Your task to perform on an android device: Go to Android settings Image 0: 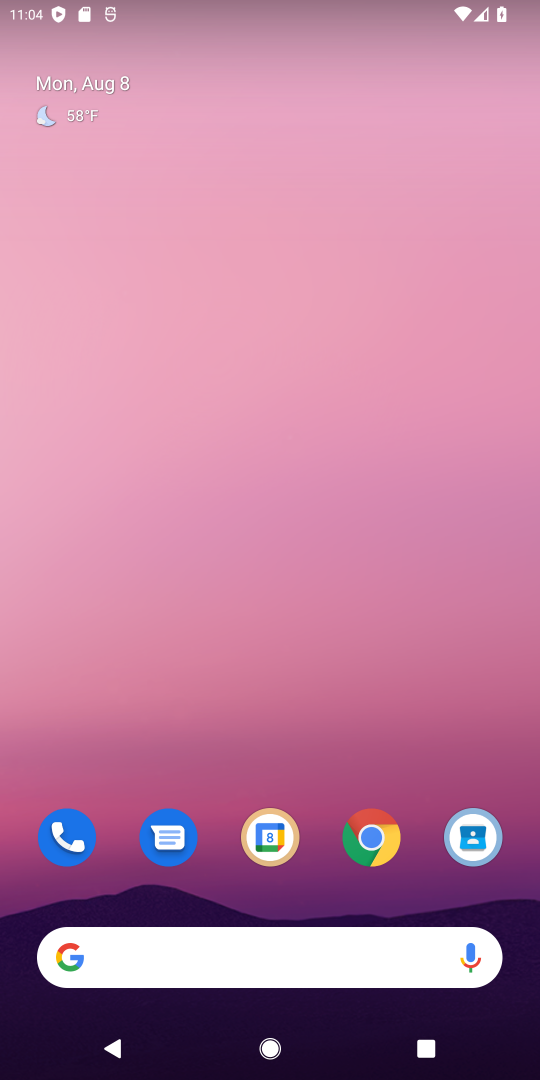
Step 0: drag from (508, 859) to (445, 156)
Your task to perform on an android device: Go to Android settings Image 1: 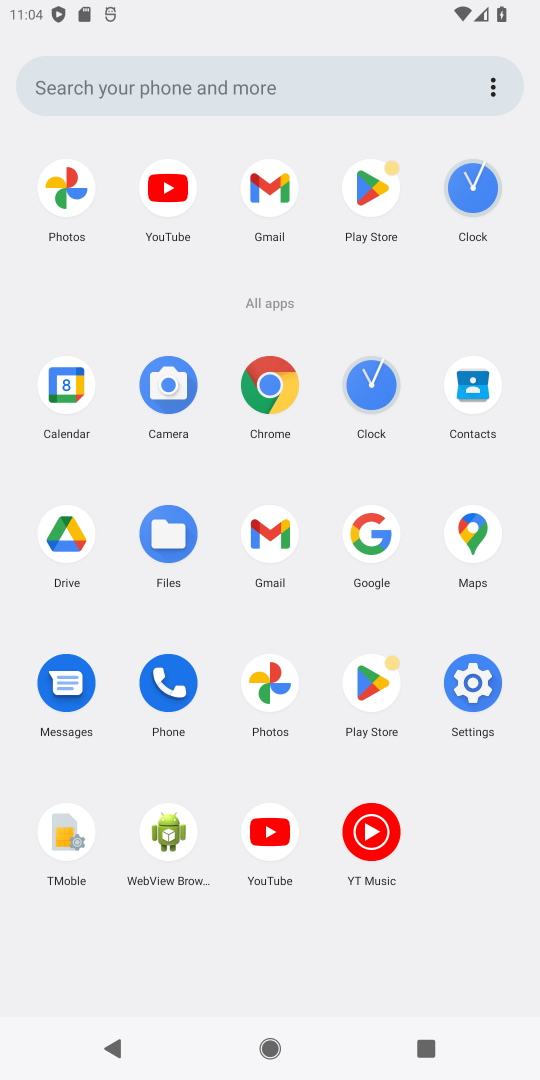
Step 1: click (479, 677)
Your task to perform on an android device: Go to Android settings Image 2: 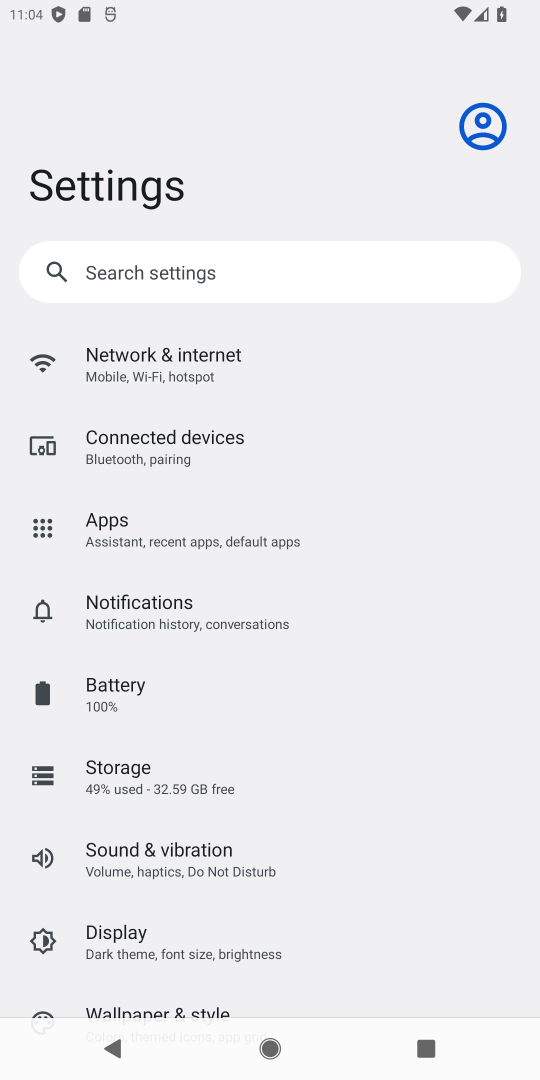
Step 2: task complete